Your task to perform on an android device: turn pop-ups off in chrome Image 0: 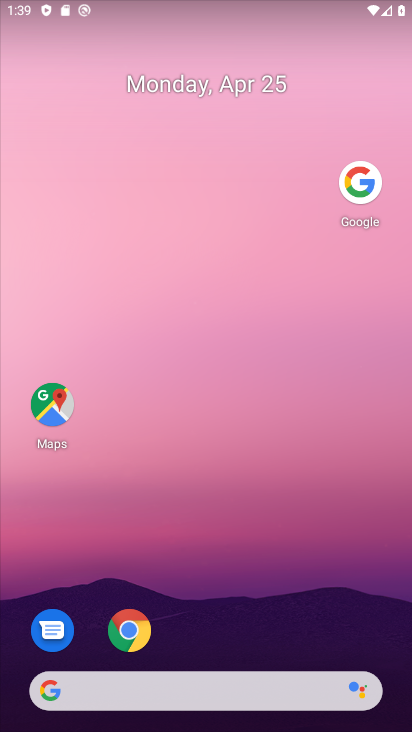
Step 0: drag from (219, 656) to (84, 666)
Your task to perform on an android device: turn pop-ups off in chrome Image 1: 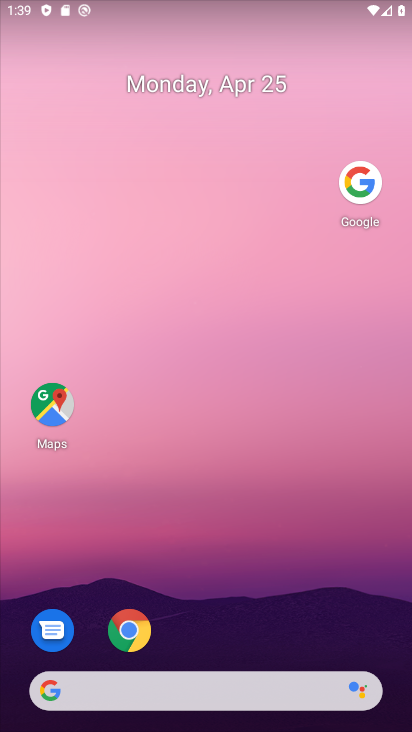
Step 1: drag from (213, 657) to (209, 28)
Your task to perform on an android device: turn pop-ups off in chrome Image 2: 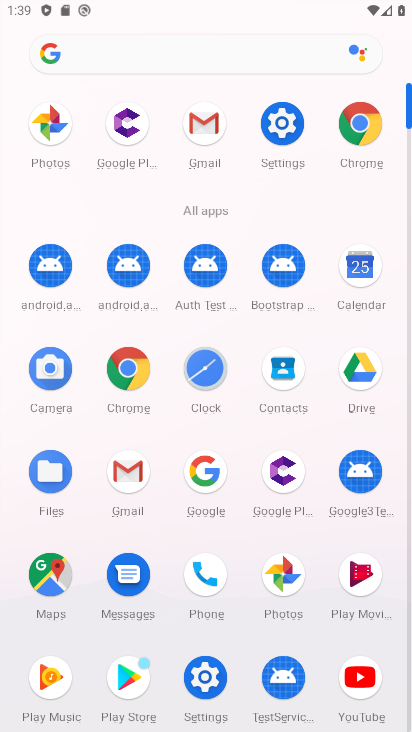
Step 2: click (356, 137)
Your task to perform on an android device: turn pop-ups off in chrome Image 3: 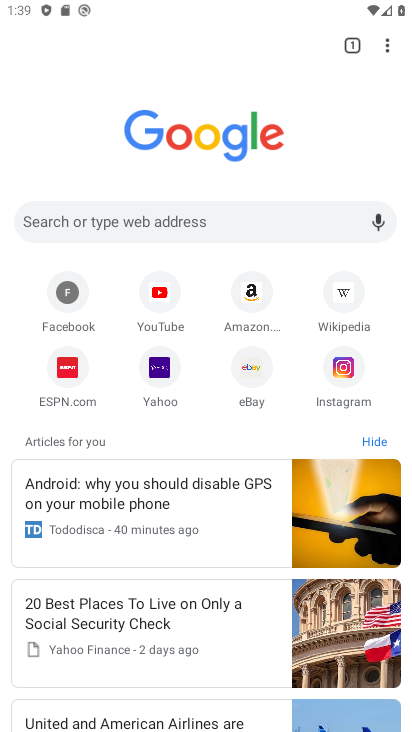
Step 3: drag from (387, 44) to (235, 371)
Your task to perform on an android device: turn pop-ups off in chrome Image 4: 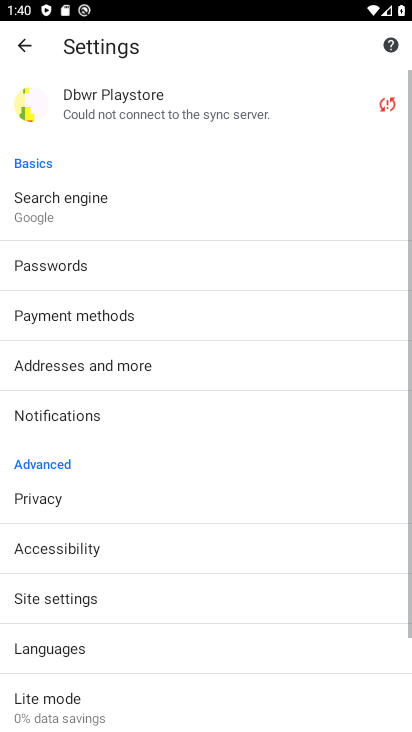
Step 4: drag from (224, 604) to (234, 152)
Your task to perform on an android device: turn pop-ups off in chrome Image 5: 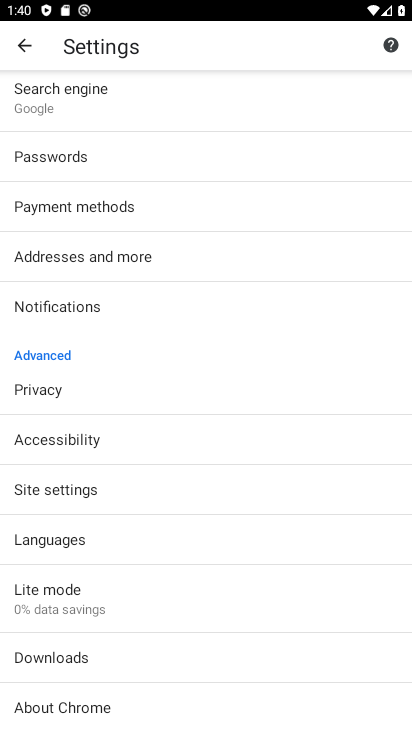
Step 5: click (62, 491)
Your task to perform on an android device: turn pop-ups off in chrome Image 6: 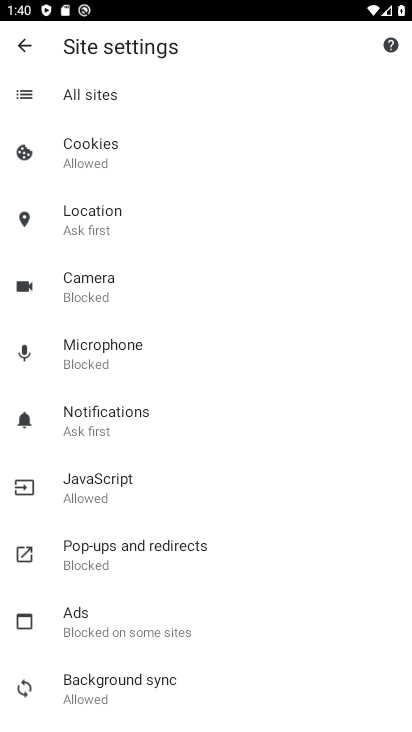
Step 6: drag from (90, 617) to (88, 446)
Your task to perform on an android device: turn pop-ups off in chrome Image 7: 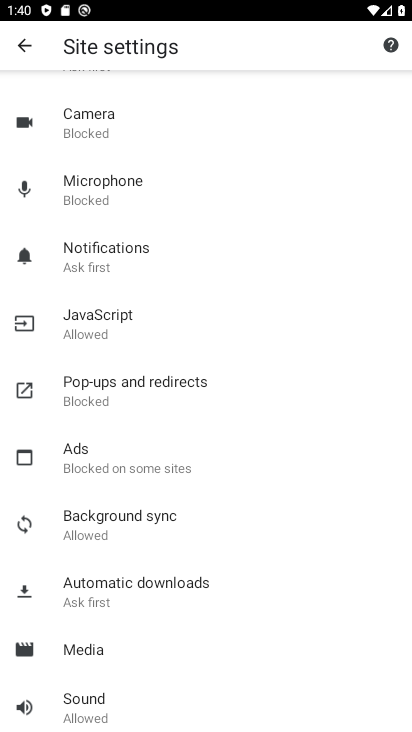
Step 7: click (115, 393)
Your task to perform on an android device: turn pop-ups off in chrome Image 8: 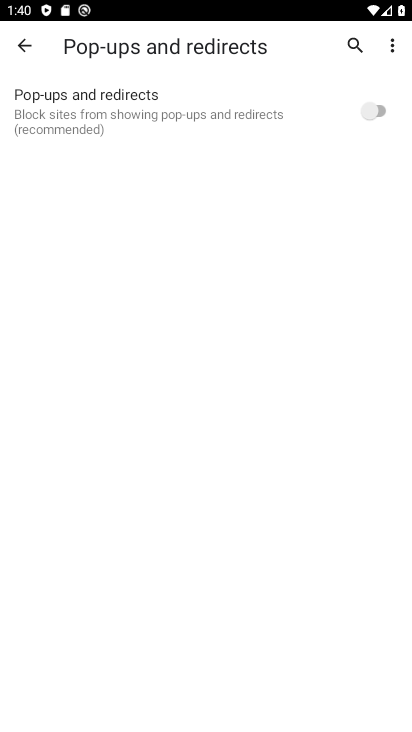
Step 8: task complete